Your task to perform on an android device: turn on data saver in the chrome app Image 0: 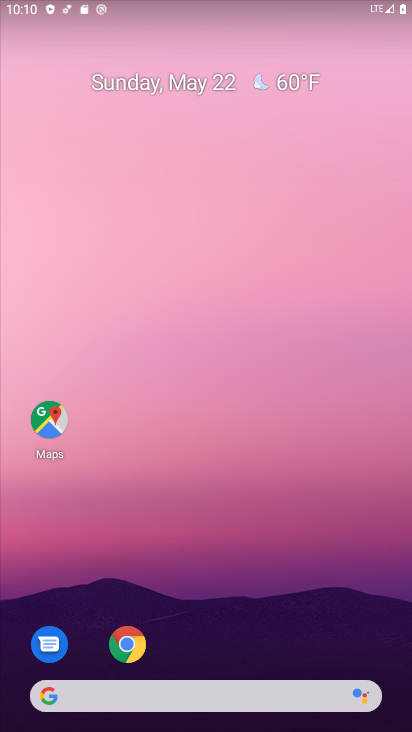
Step 0: click (134, 647)
Your task to perform on an android device: turn on data saver in the chrome app Image 1: 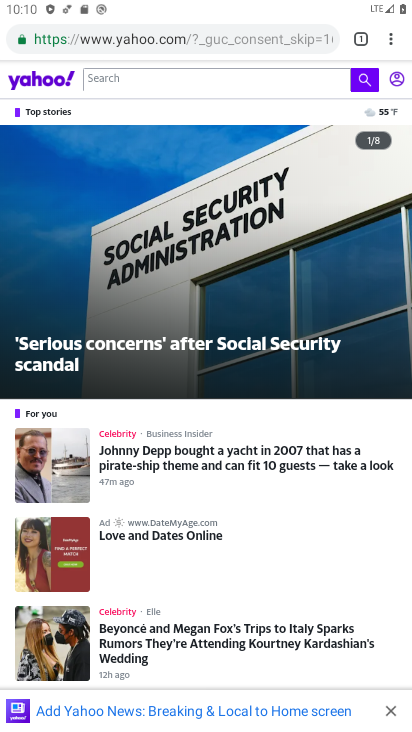
Step 1: click (390, 35)
Your task to perform on an android device: turn on data saver in the chrome app Image 2: 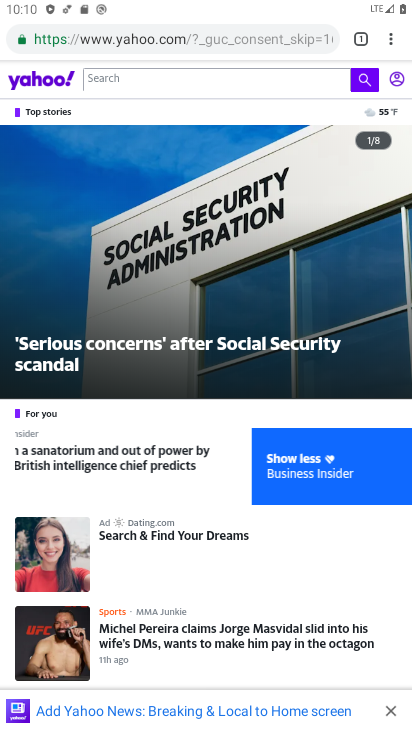
Step 2: click (392, 40)
Your task to perform on an android device: turn on data saver in the chrome app Image 3: 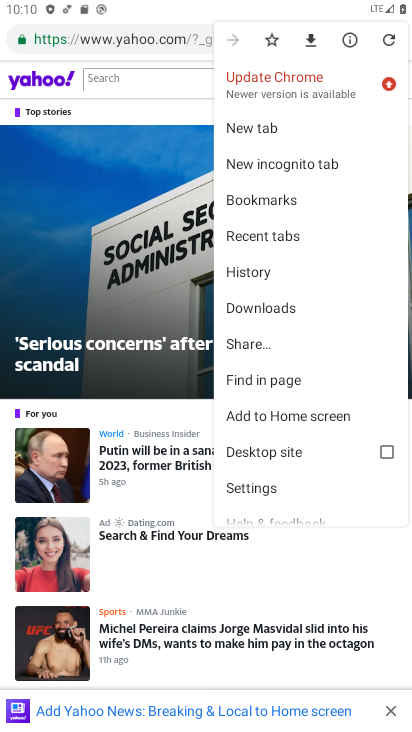
Step 3: click (261, 489)
Your task to perform on an android device: turn on data saver in the chrome app Image 4: 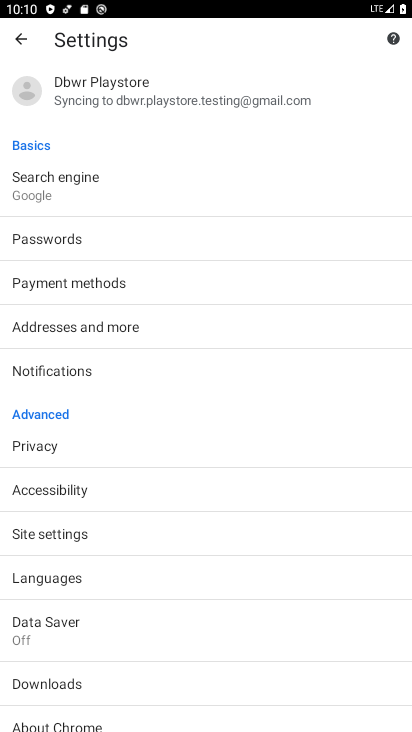
Step 4: drag from (145, 697) to (180, 362)
Your task to perform on an android device: turn on data saver in the chrome app Image 5: 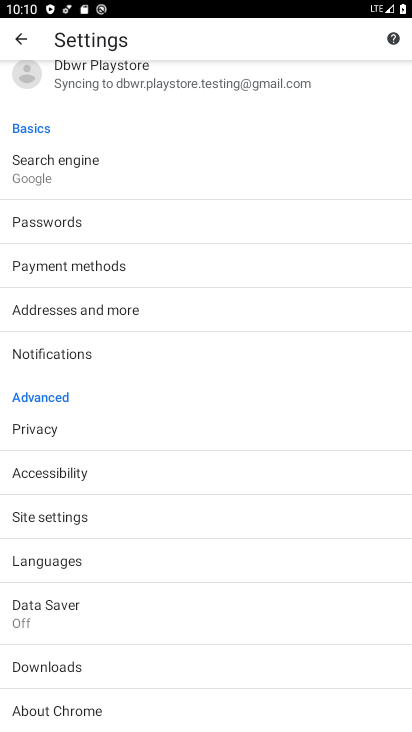
Step 5: click (77, 603)
Your task to perform on an android device: turn on data saver in the chrome app Image 6: 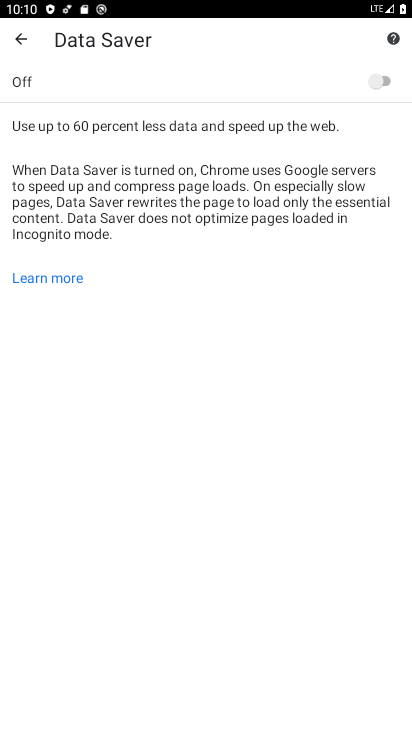
Step 6: click (376, 84)
Your task to perform on an android device: turn on data saver in the chrome app Image 7: 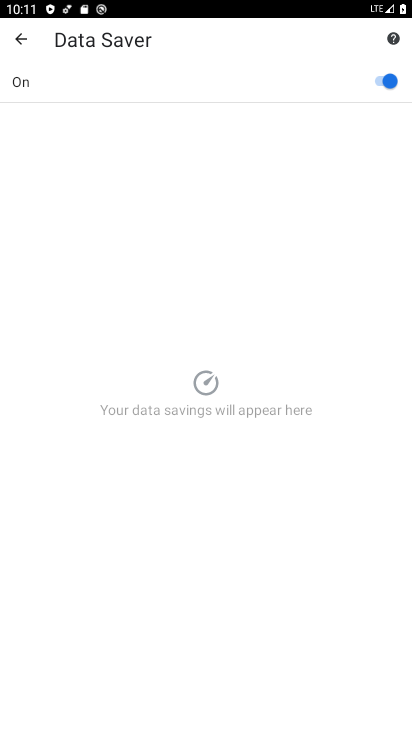
Step 7: task complete